Your task to perform on an android device: Open Youtube and go to "Your channel" Image 0: 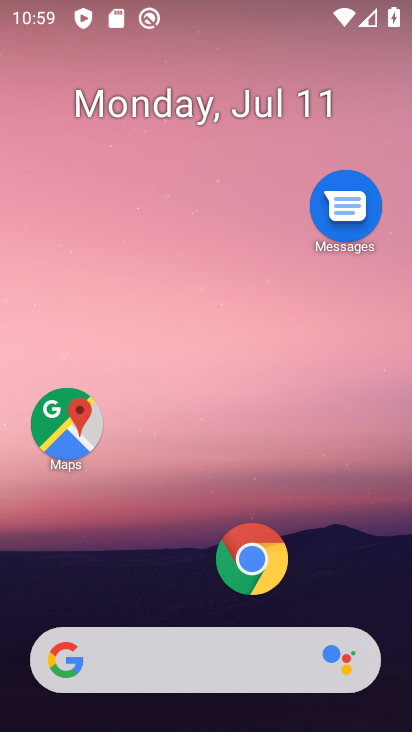
Step 0: drag from (368, 581) to (345, 142)
Your task to perform on an android device: Open Youtube and go to "Your channel" Image 1: 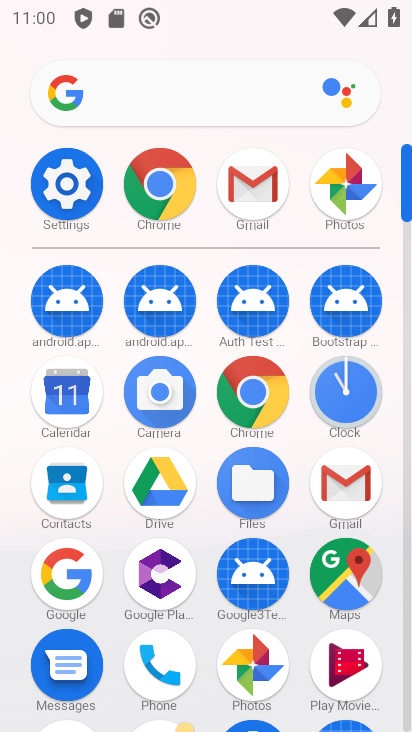
Step 1: drag from (386, 527) to (393, 286)
Your task to perform on an android device: Open Youtube and go to "Your channel" Image 2: 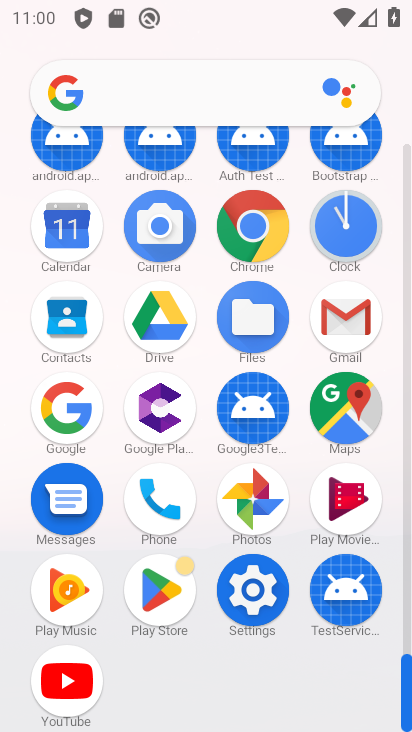
Step 2: click (71, 677)
Your task to perform on an android device: Open Youtube and go to "Your channel" Image 3: 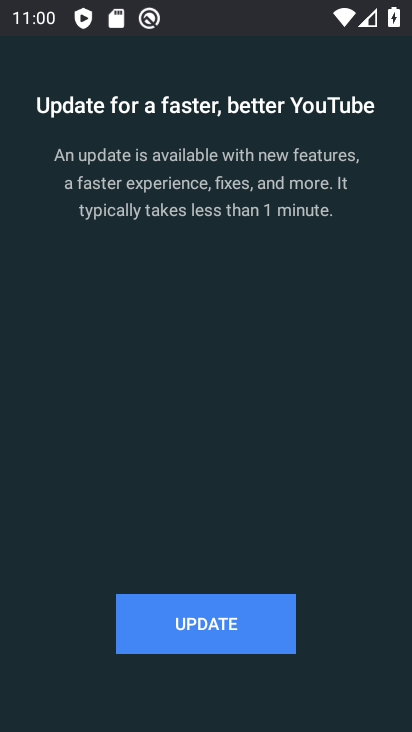
Step 3: click (232, 623)
Your task to perform on an android device: Open Youtube and go to "Your channel" Image 4: 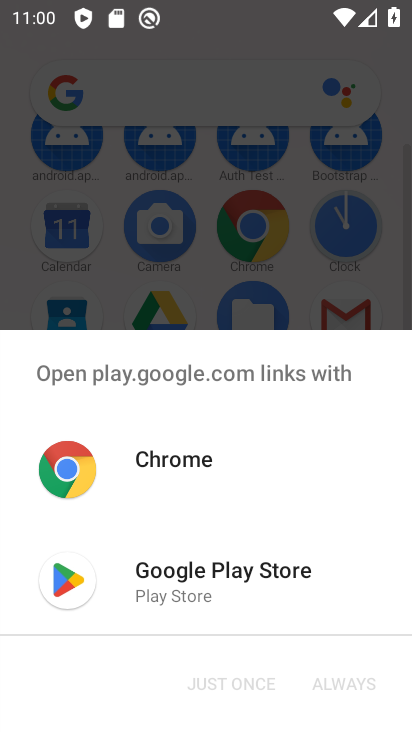
Step 4: click (152, 570)
Your task to perform on an android device: Open Youtube and go to "Your channel" Image 5: 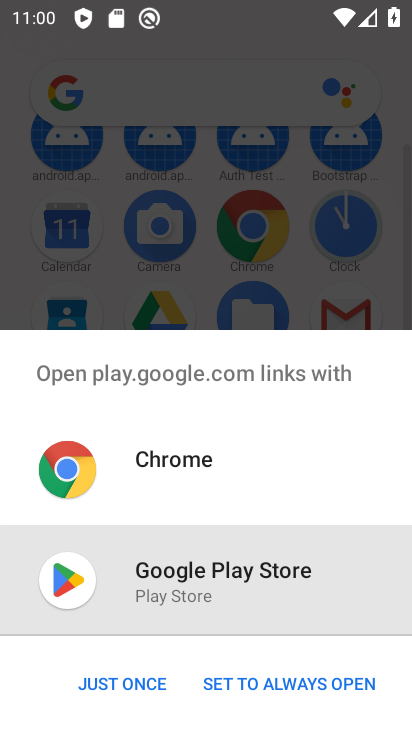
Step 5: click (121, 688)
Your task to perform on an android device: Open Youtube and go to "Your channel" Image 6: 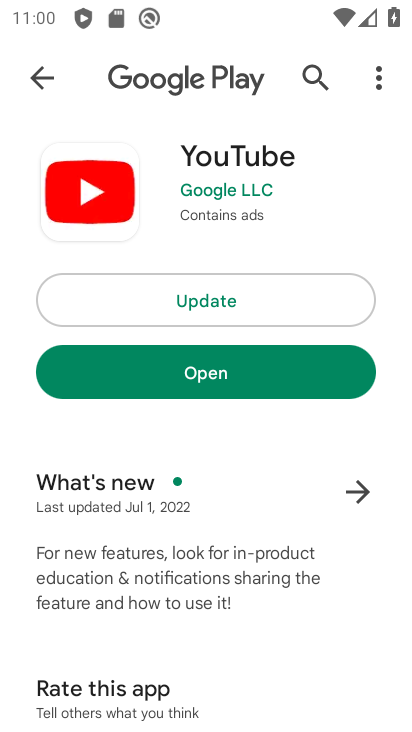
Step 6: click (219, 309)
Your task to perform on an android device: Open Youtube and go to "Your channel" Image 7: 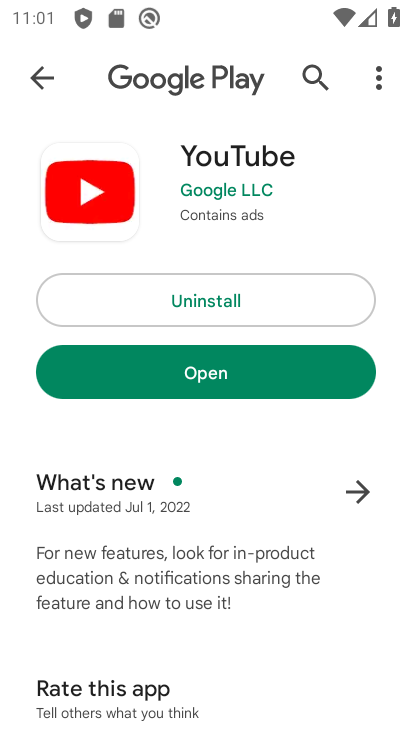
Step 7: click (259, 360)
Your task to perform on an android device: Open Youtube and go to "Your channel" Image 8: 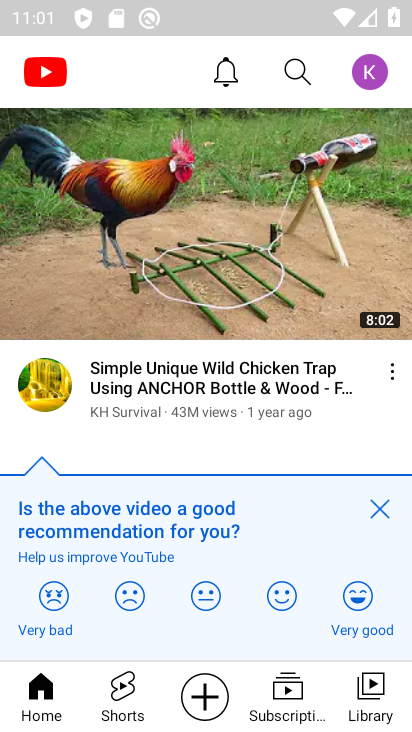
Step 8: click (367, 77)
Your task to perform on an android device: Open Youtube and go to "Your channel" Image 9: 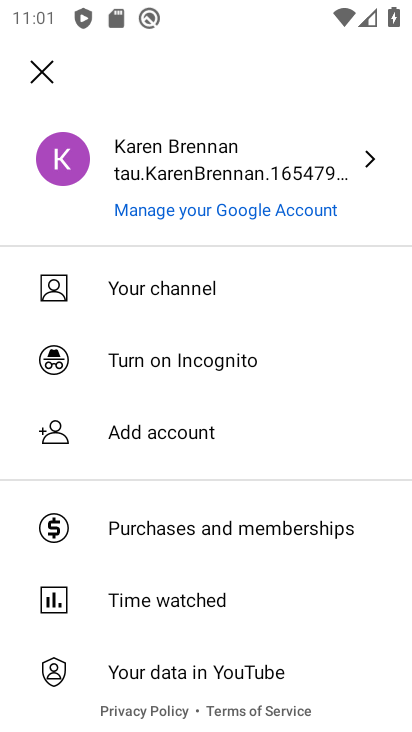
Step 9: click (217, 284)
Your task to perform on an android device: Open Youtube and go to "Your channel" Image 10: 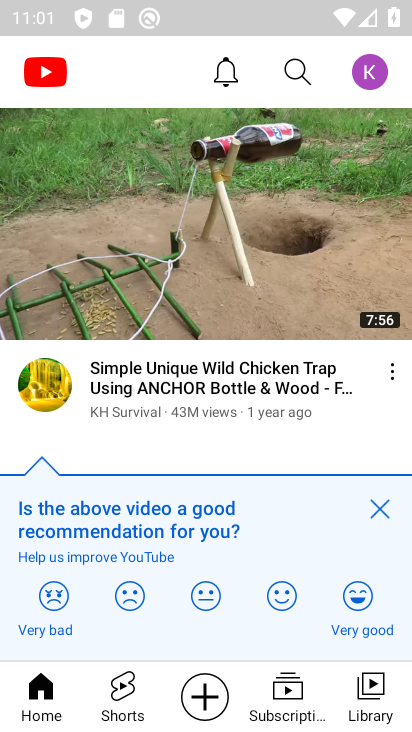
Step 10: task complete